Your task to perform on an android device: Show me popular videos on Youtube Image 0: 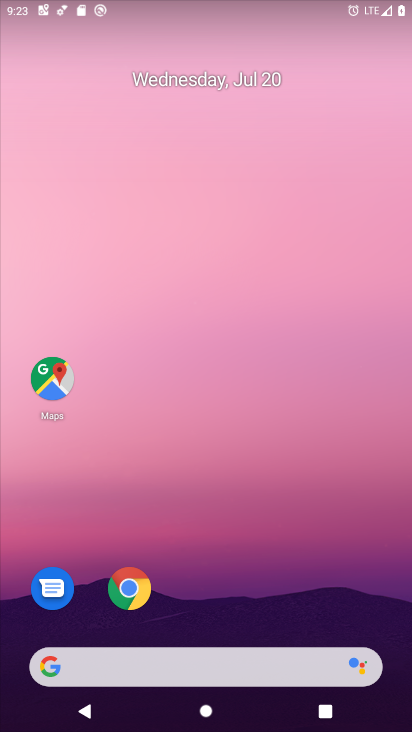
Step 0: press home button
Your task to perform on an android device: Show me popular videos on Youtube Image 1: 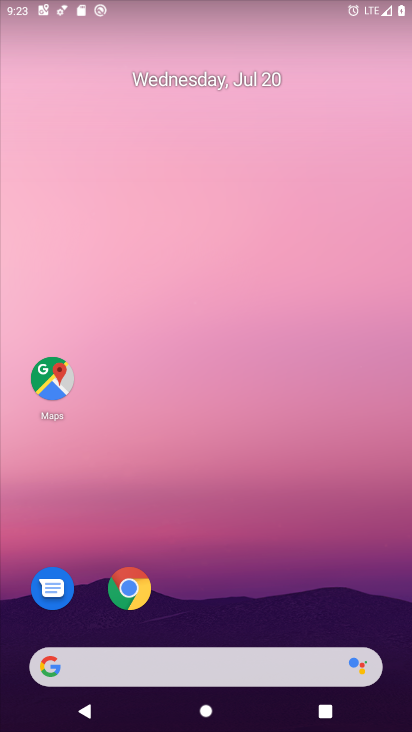
Step 1: drag from (223, 614) to (272, 88)
Your task to perform on an android device: Show me popular videos on Youtube Image 2: 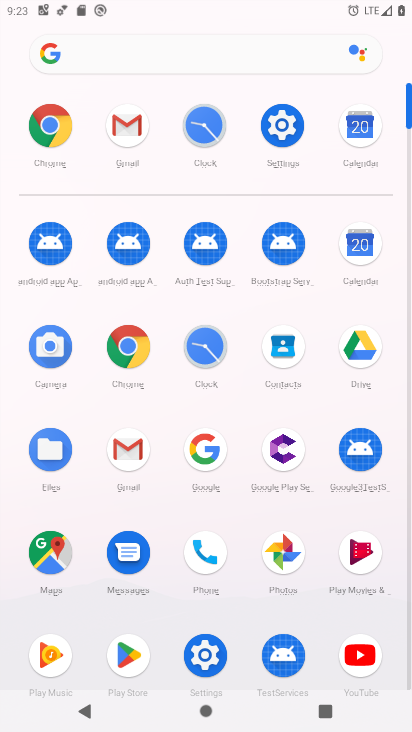
Step 2: click (355, 648)
Your task to perform on an android device: Show me popular videos on Youtube Image 3: 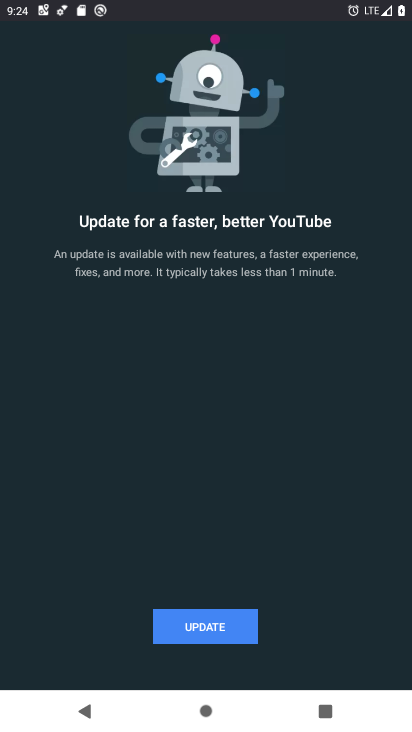
Step 3: click (204, 614)
Your task to perform on an android device: Show me popular videos on Youtube Image 4: 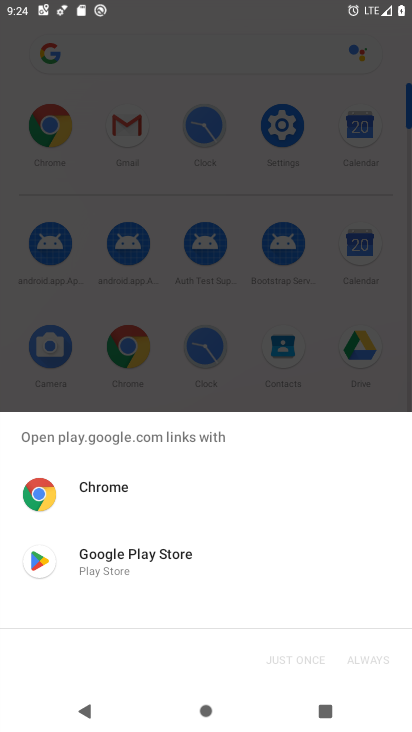
Step 4: click (90, 559)
Your task to perform on an android device: Show me popular videos on Youtube Image 5: 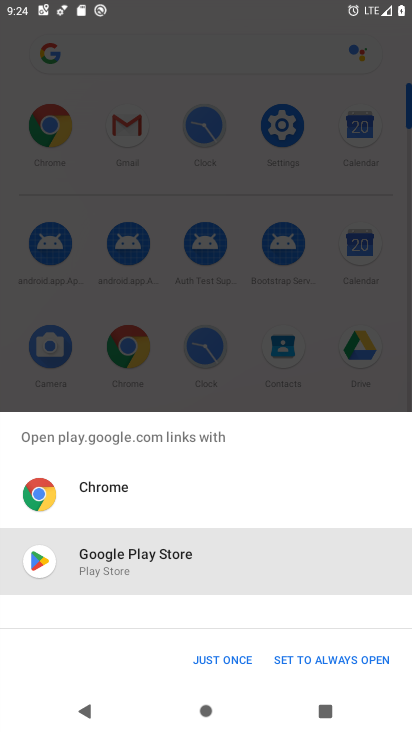
Step 5: click (220, 661)
Your task to perform on an android device: Show me popular videos on Youtube Image 6: 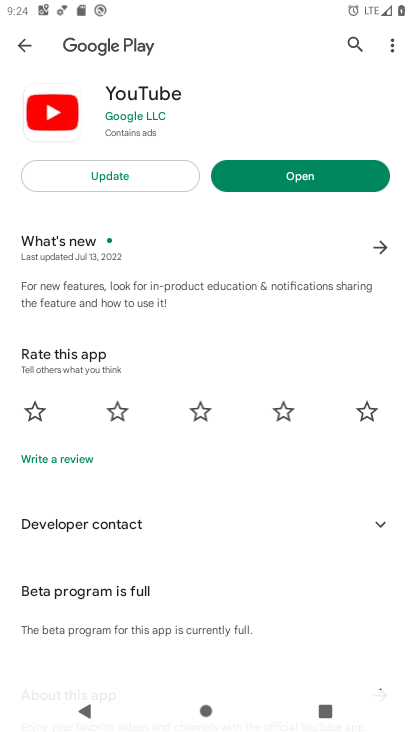
Step 6: click (113, 174)
Your task to perform on an android device: Show me popular videos on Youtube Image 7: 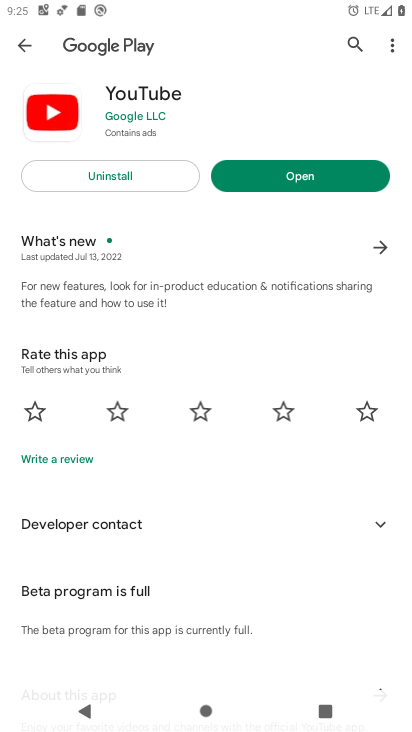
Step 7: click (298, 176)
Your task to perform on an android device: Show me popular videos on Youtube Image 8: 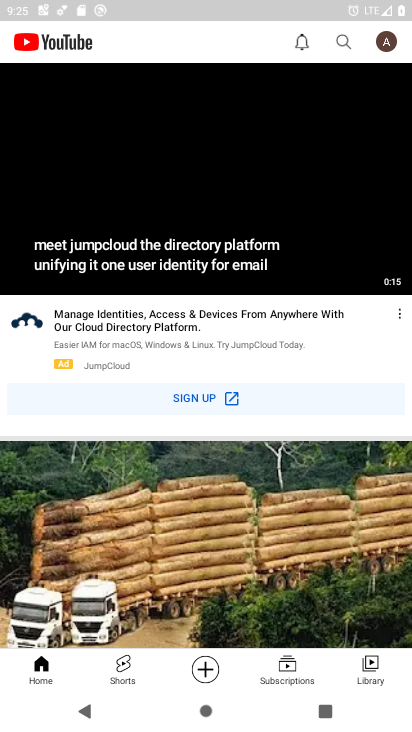
Step 8: click (369, 662)
Your task to perform on an android device: Show me popular videos on Youtube Image 9: 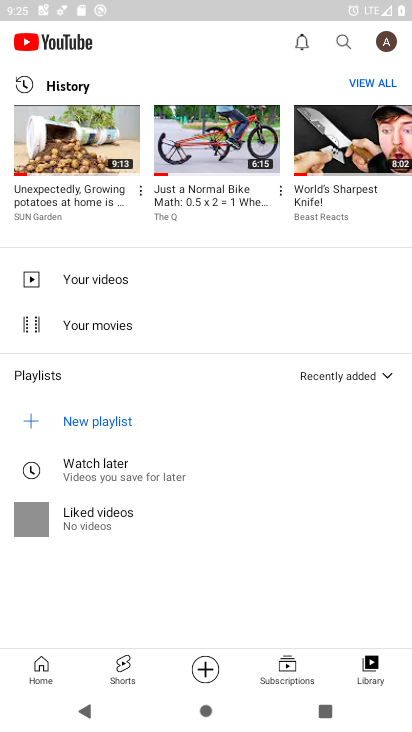
Step 9: click (34, 666)
Your task to perform on an android device: Show me popular videos on Youtube Image 10: 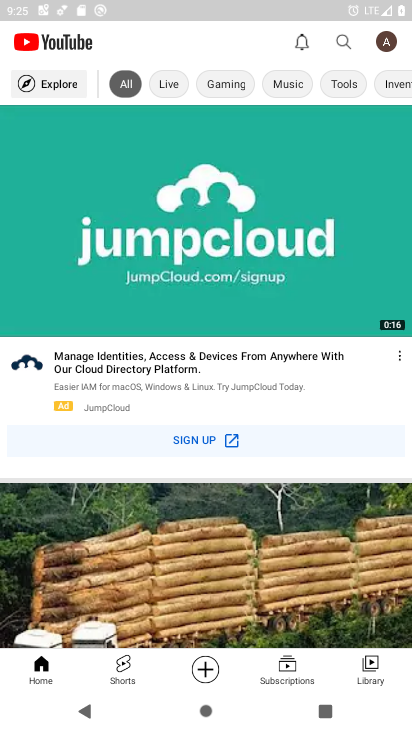
Step 10: drag from (225, 538) to (219, 697)
Your task to perform on an android device: Show me popular videos on Youtube Image 11: 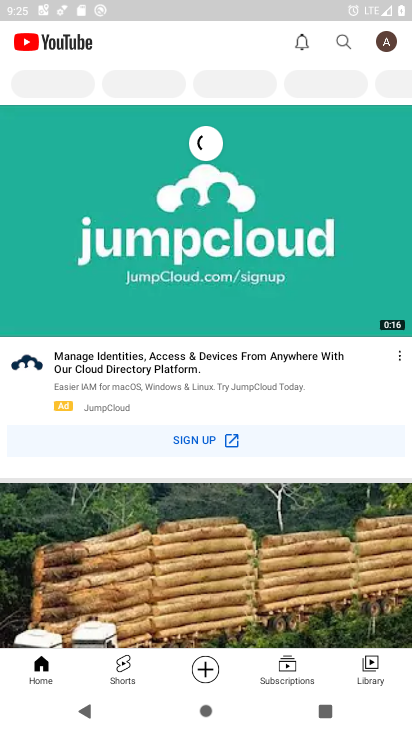
Step 11: click (56, 76)
Your task to perform on an android device: Show me popular videos on Youtube Image 12: 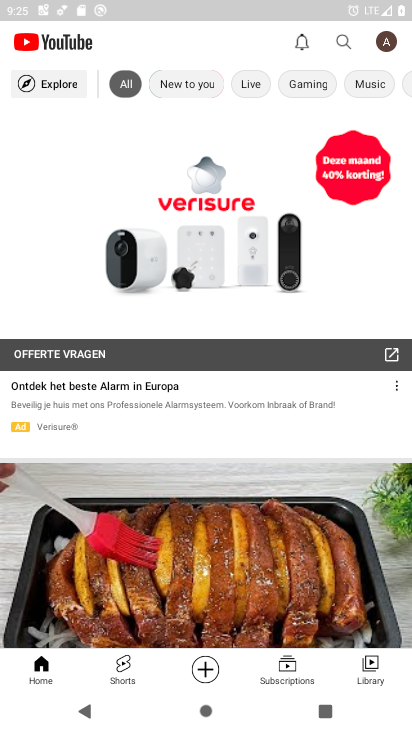
Step 12: click (56, 83)
Your task to perform on an android device: Show me popular videos on Youtube Image 13: 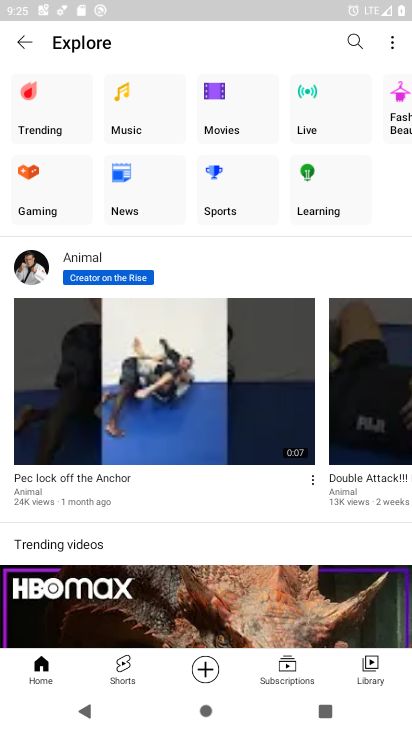
Step 13: click (38, 99)
Your task to perform on an android device: Show me popular videos on Youtube Image 14: 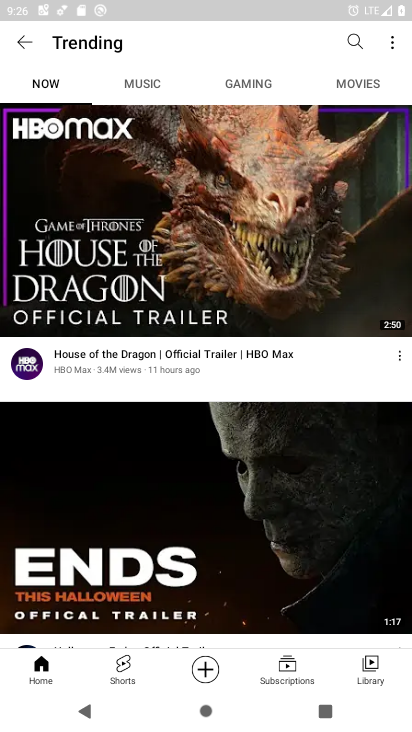
Step 14: task complete